Your task to perform on an android device: Open the Play Movies app and select the watchlist tab. Image 0: 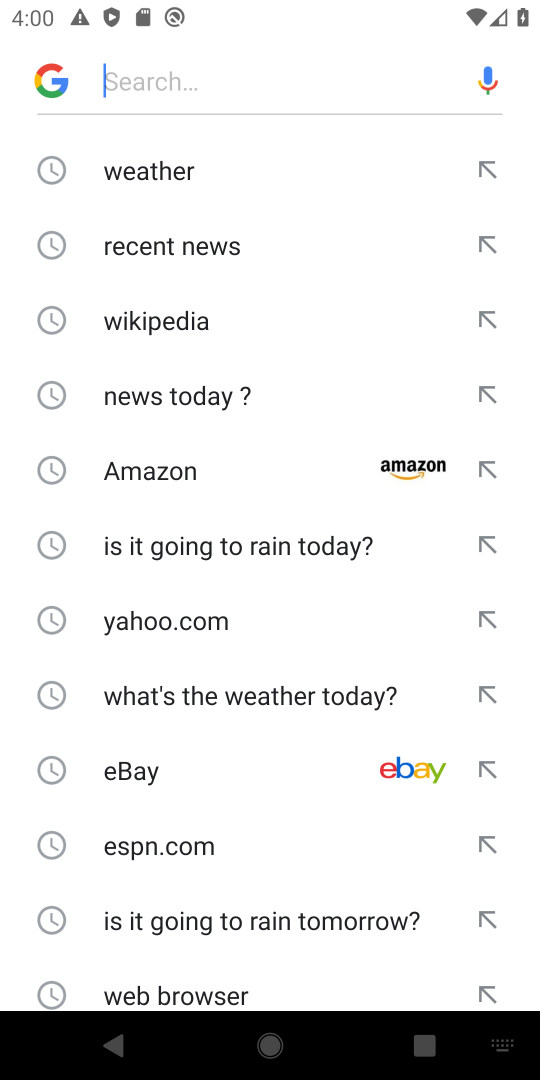
Step 0: press home button
Your task to perform on an android device: Open the Play Movies app and select the watchlist tab. Image 1: 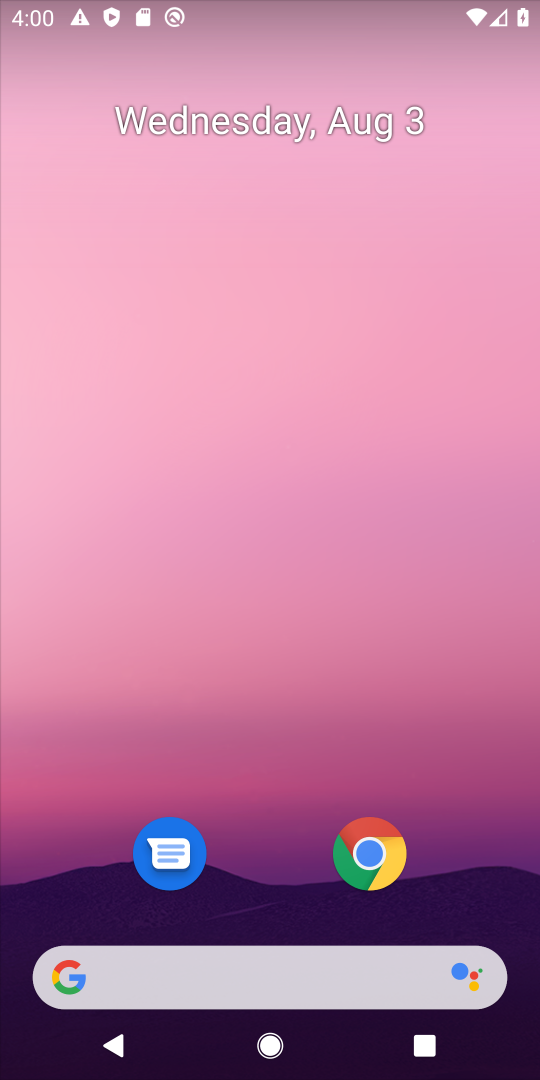
Step 1: drag from (263, 719) to (271, 196)
Your task to perform on an android device: Open the Play Movies app and select the watchlist tab. Image 2: 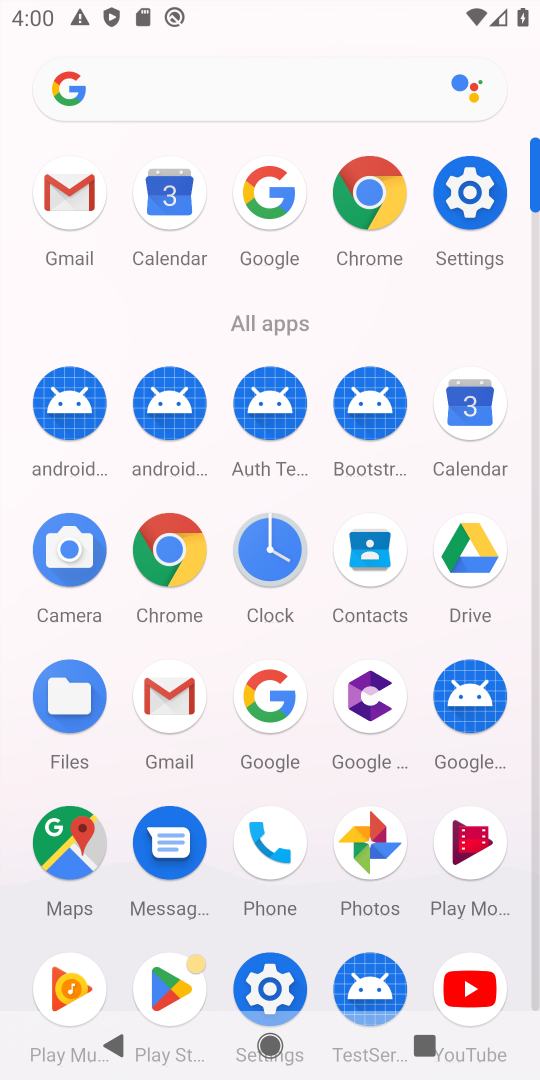
Step 2: click (470, 834)
Your task to perform on an android device: Open the Play Movies app and select the watchlist tab. Image 3: 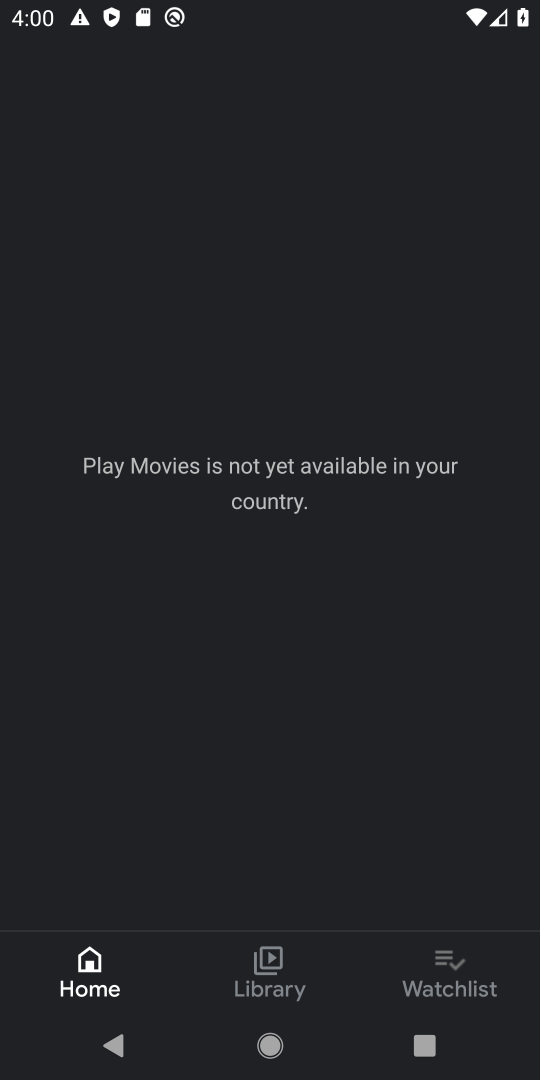
Step 3: click (433, 981)
Your task to perform on an android device: Open the Play Movies app and select the watchlist tab. Image 4: 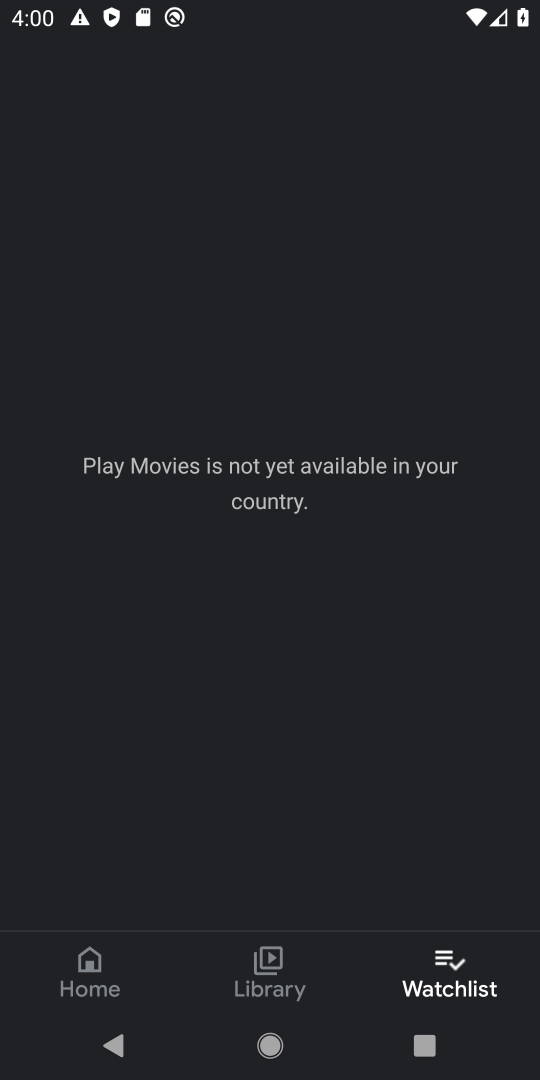
Step 4: task complete